Your task to perform on an android device: turn on sleep mode Image 0: 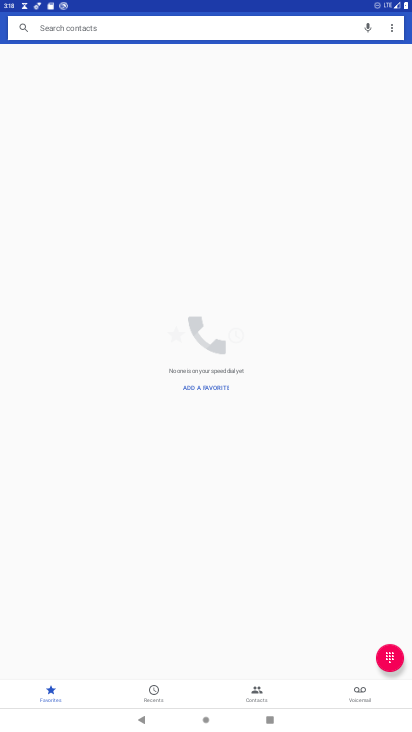
Step 0: press home button
Your task to perform on an android device: turn on sleep mode Image 1: 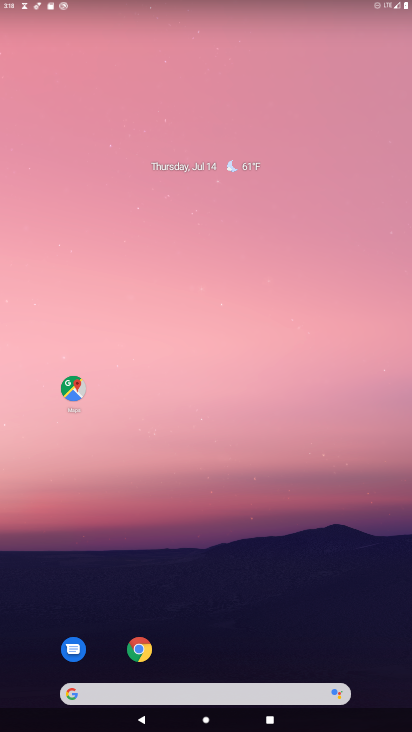
Step 1: drag from (235, 685) to (292, 24)
Your task to perform on an android device: turn on sleep mode Image 2: 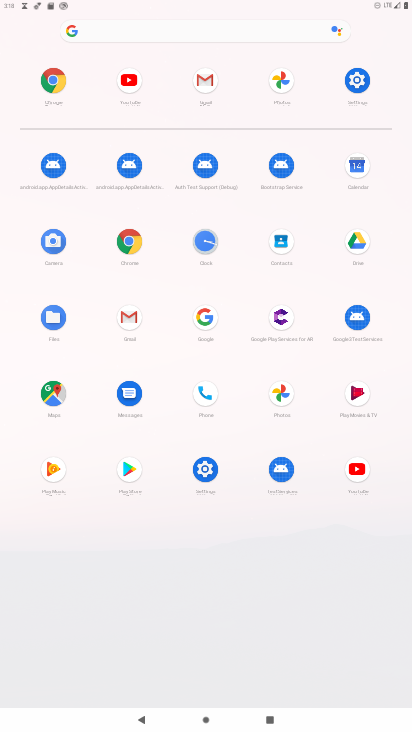
Step 2: click (357, 71)
Your task to perform on an android device: turn on sleep mode Image 3: 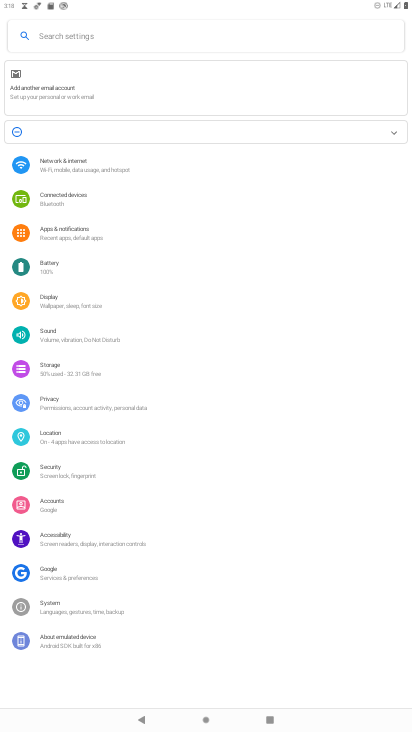
Step 3: click (95, 306)
Your task to perform on an android device: turn on sleep mode Image 4: 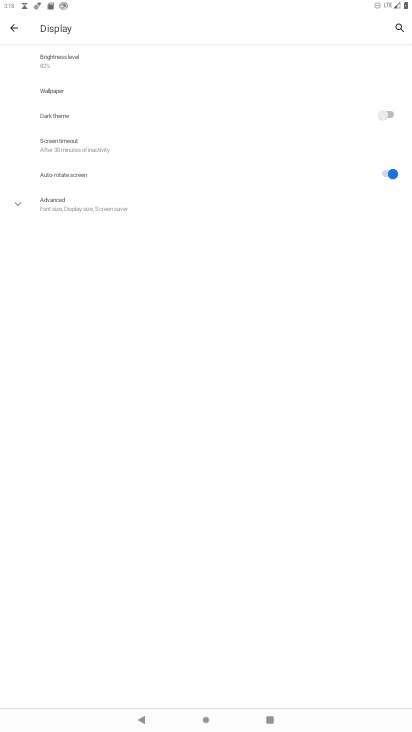
Step 4: task complete